Your task to perform on an android device: Toggle the flashlight Image 0: 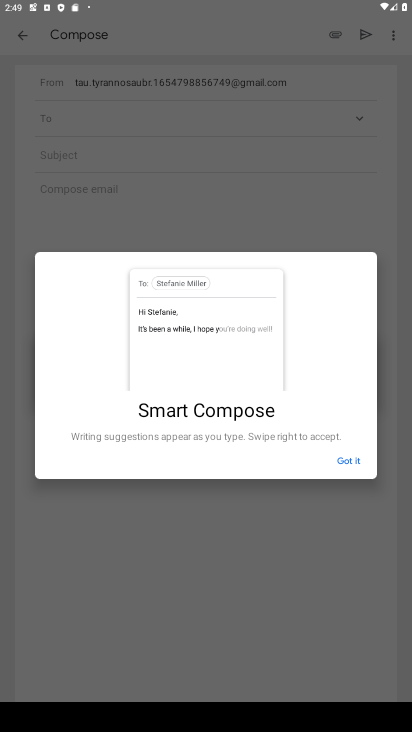
Step 0: press home button
Your task to perform on an android device: Toggle the flashlight Image 1: 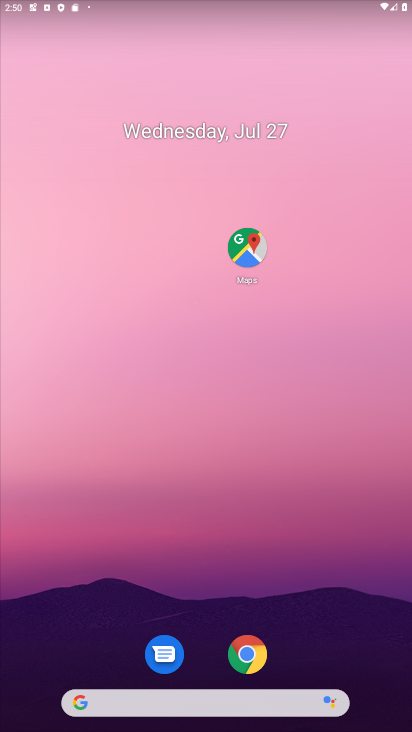
Step 1: drag from (29, 569) to (275, 73)
Your task to perform on an android device: Toggle the flashlight Image 2: 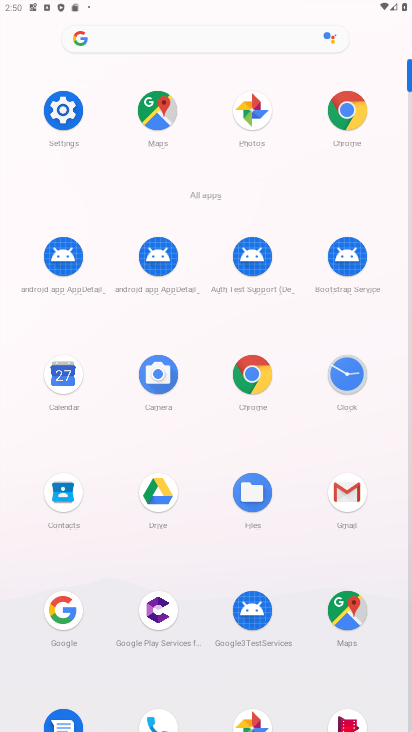
Step 2: click (60, 117)
Your task to perform on an android device: Toggle the flashlight Image 3: 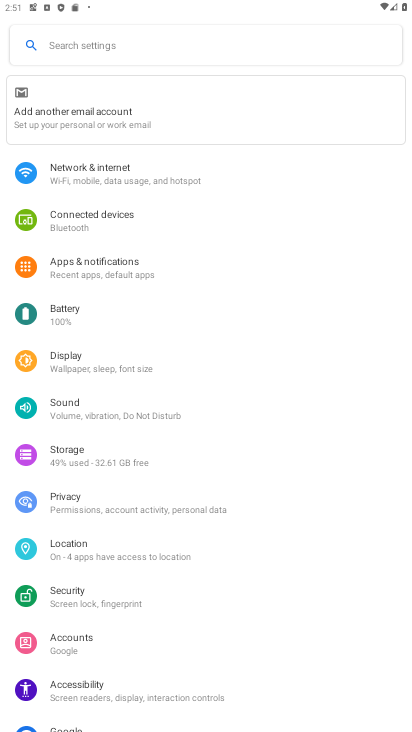
Step 3: task complete